Your task to perform on an android device: turn off picture-in-picture Image 0: 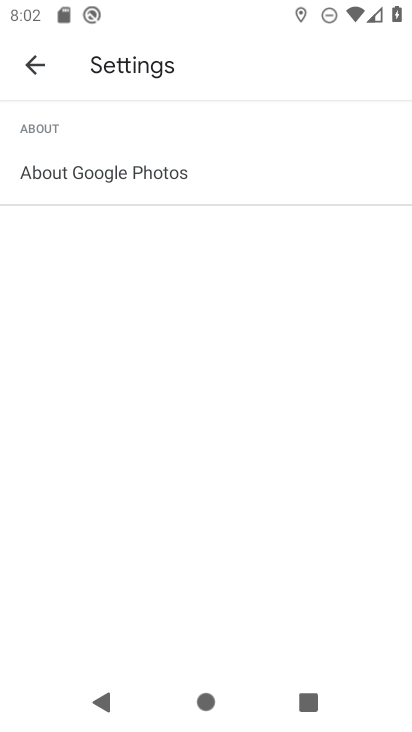
Step 0: press home button
Your task to perform on an android device: turn off picture-in-picture Image 1: 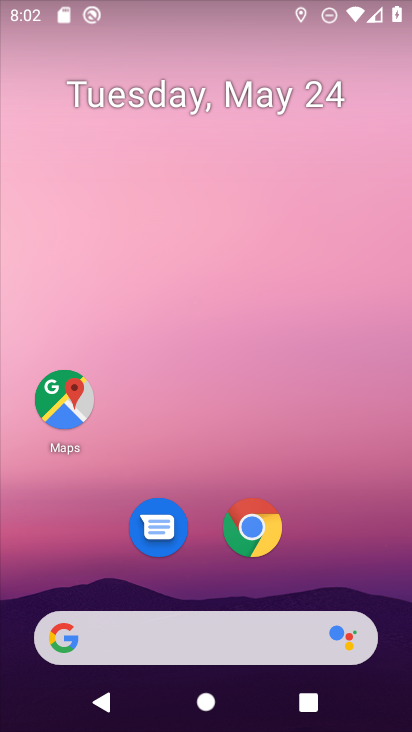
Step 1: click (260, 532)
Your task to perform on an android device: turn off picture-in-picture Image 2: 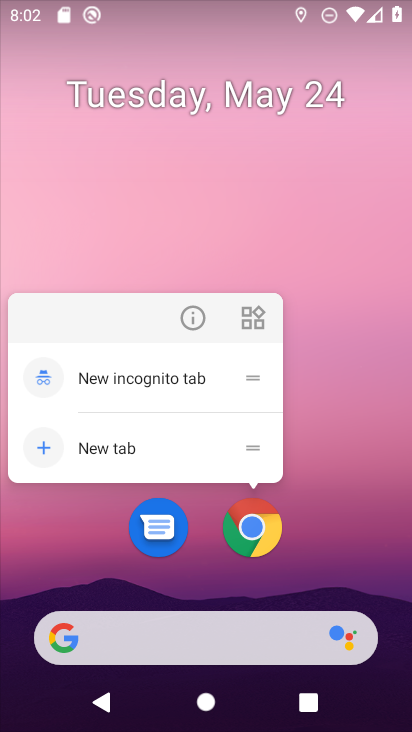
Step 2: click (195, 315)
Your task to perform on an android device: turn off picture-in-picture Image 3: 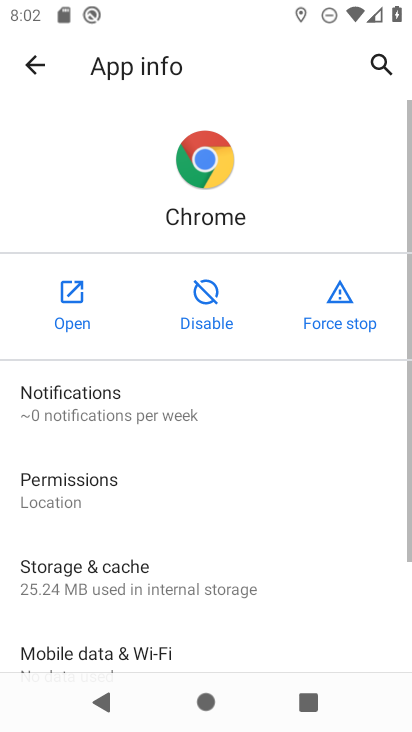
Step 3: drag from (226, 451) to (227, 53)
Your task to perform on an android device: turn off picture-in-picture Image 4: 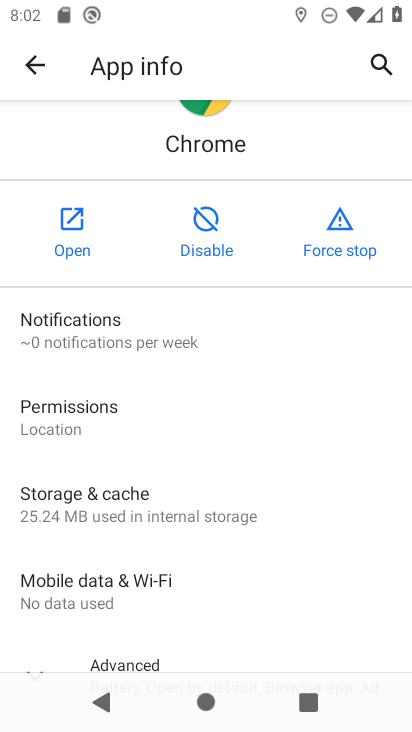
Step 4: drag from (125, 599) to (115, 197)
Your task to perform on an android device: turn off picture-in-picture Image 5: 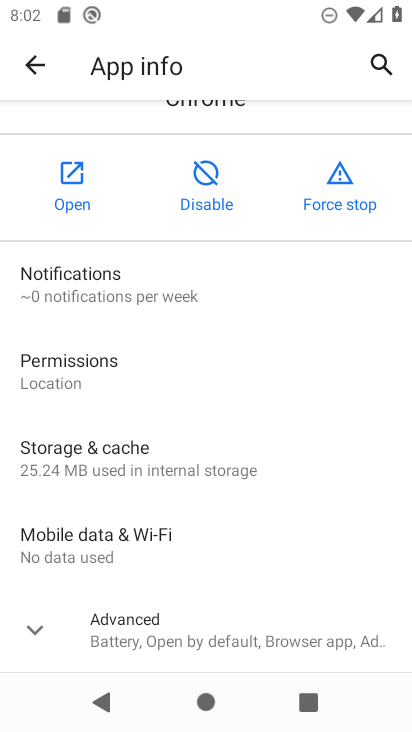
Step 5: click (107, 645)
Your task to perform on an android device: turn off picture-in-picture Image 6: 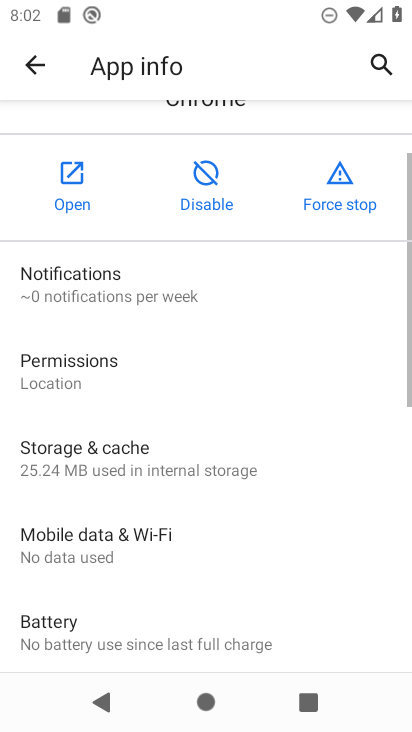
Step 6: drag from (329, 580) to (246, 172)
Your task to perform on an android device: turn off picture-in-picture Image 7: 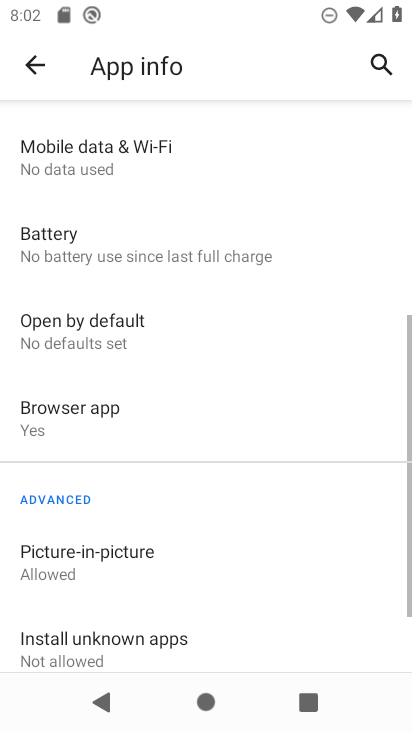
Step 7: click (246, 172)
Your task to perform on an android device: turn off picture-in-picture Image 8: 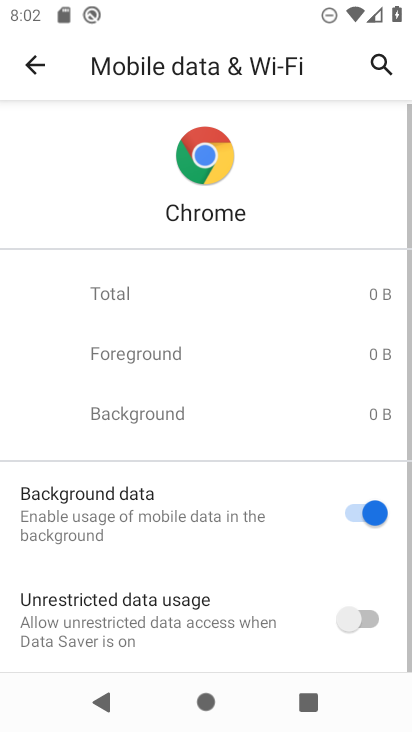
Step 8: click (35, 54)
Your task to perform on an android device: turn off picture-in-picture Image 9: 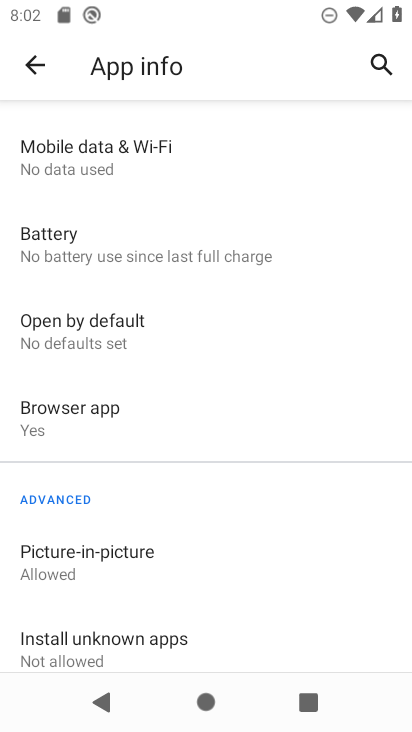
Step 9: click (76, 574)
Your task to perform on an android device: turn off picture-in-picture Image 10: 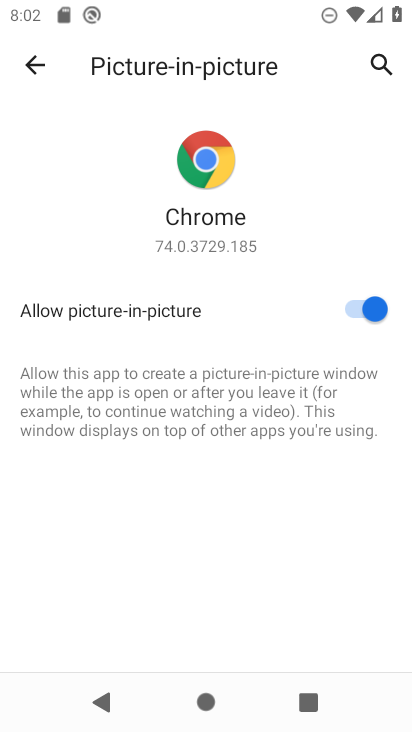
Step 10: click (358, 313)
Your task to perform on an android device: turn off picture-in-picture Image 11: 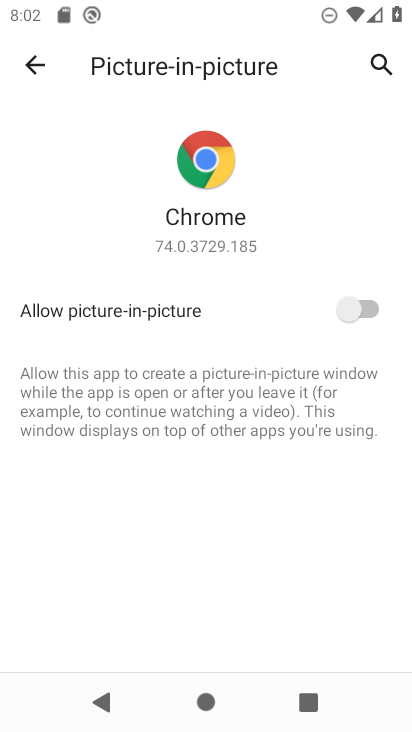
Step 11: task complete